Your task to perform on an android device: toggle translation in the chrome app Image 0: 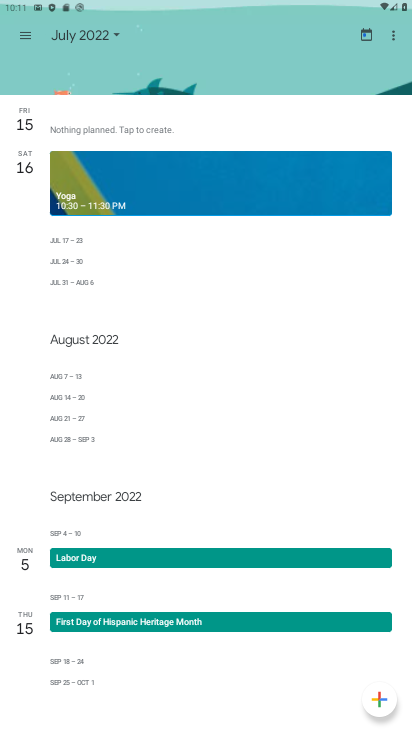
Step 0: press home button
Your task to perform on an android device: toggle translation in the chrome app Image 1: 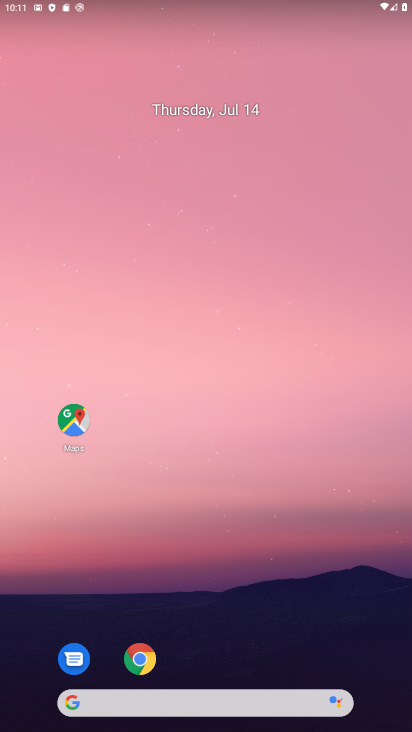
Step 1: drag from (171, 610) to (228, 102)
Your task to perform on an android device: toggle translation in the chrome app Image 2: 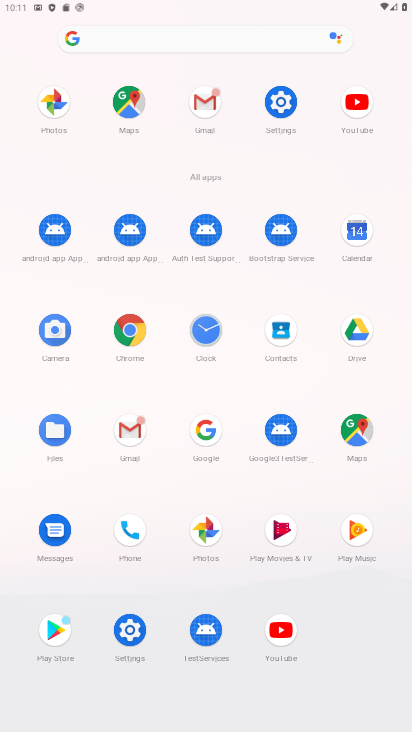
Step 2: click (139, 324)
Your task to perform on an android device: toggle translation in the chrome app Image 3: 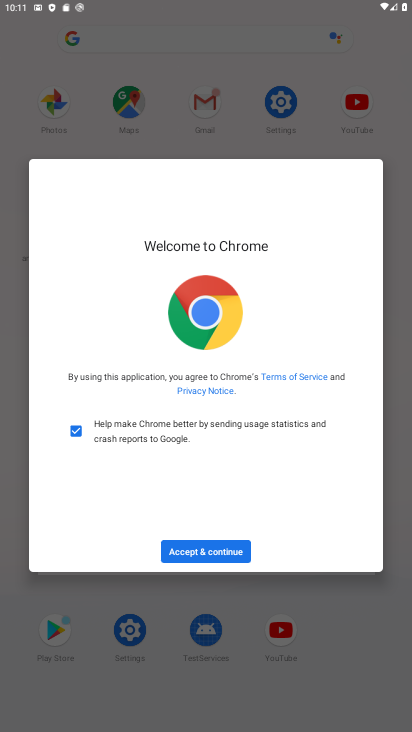
Step 3: click (218, 558)
Your task to perform on an android device: toggle translation in the chrome app Image 4: 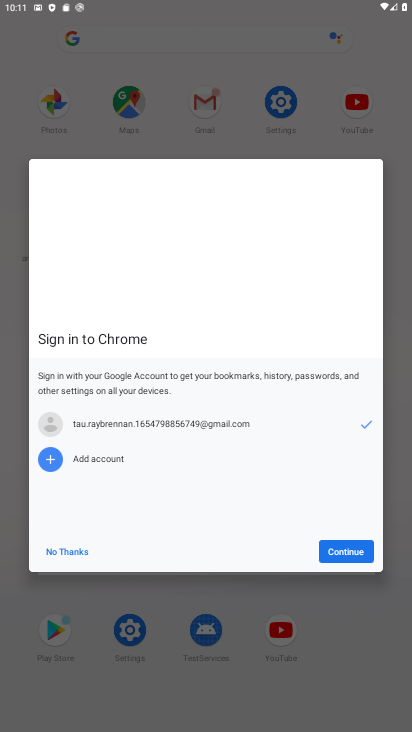
Step 4: click (370, 545)
Your task to perform on an android device: toggle translation in the chrome app Image 5: 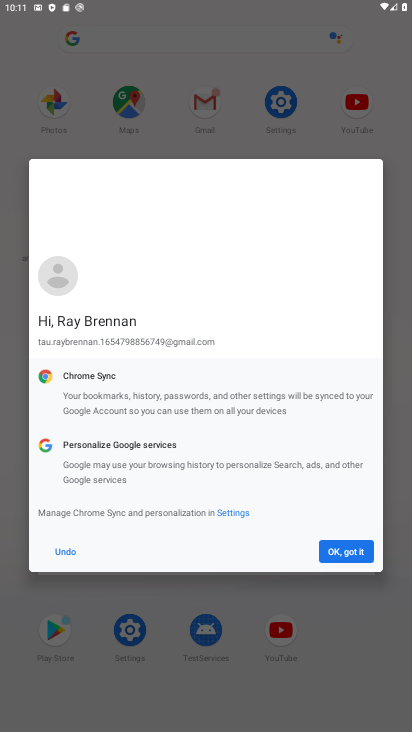
Step 5: click (351, 545)
Your task to perform on an android device: toggle translation in the chrome app Image 6: 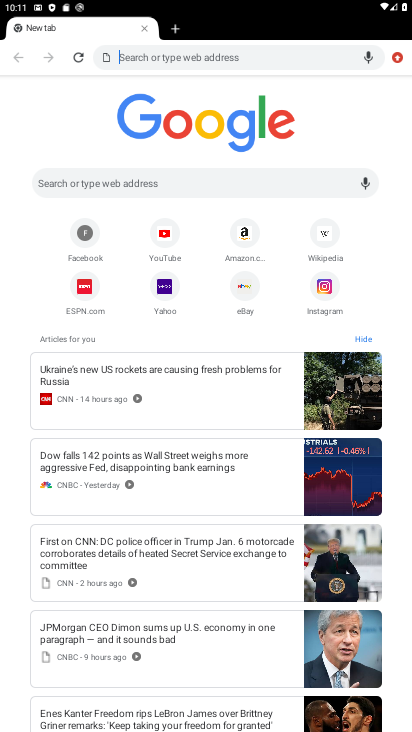
Step 6: drag from (391, 53) to (343, 300)
Your task to perform on an android device: toggle translation in the chrome app Image 7: 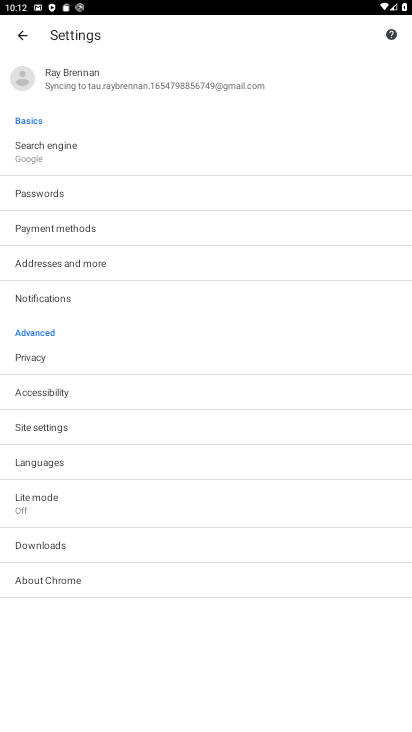
Step 7: click (80, 473)
Your task to perform on an android device: toggle translation in the chrome app Image 8: 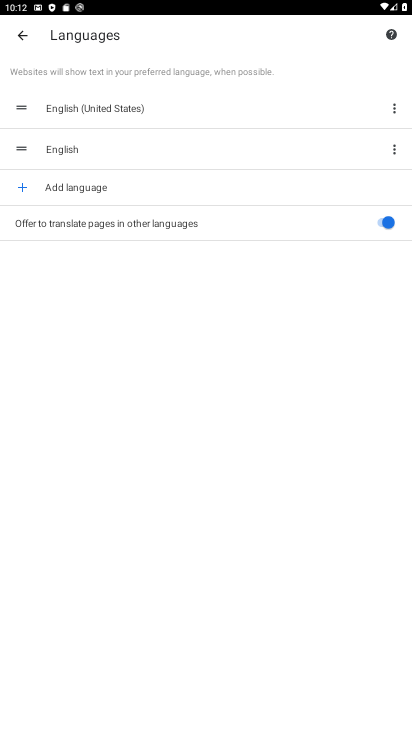
Step 8: click (376, 217)
Your task to perform on an android device: toggle translation in the chrome app Image 9: 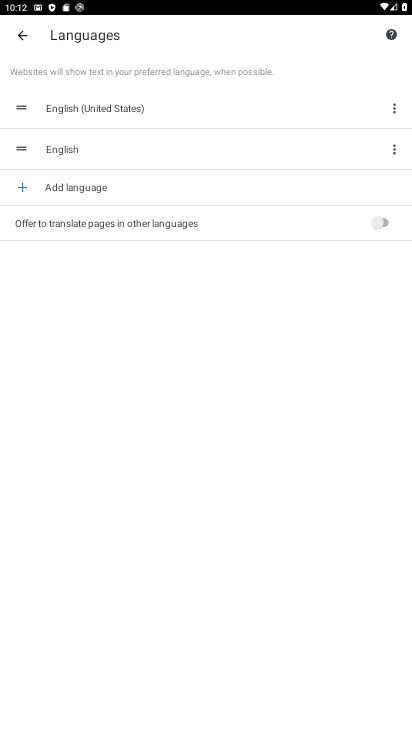
Step 9: task complete